Your task to perform on an android device: delete browsing data in the chrome app Image 0: 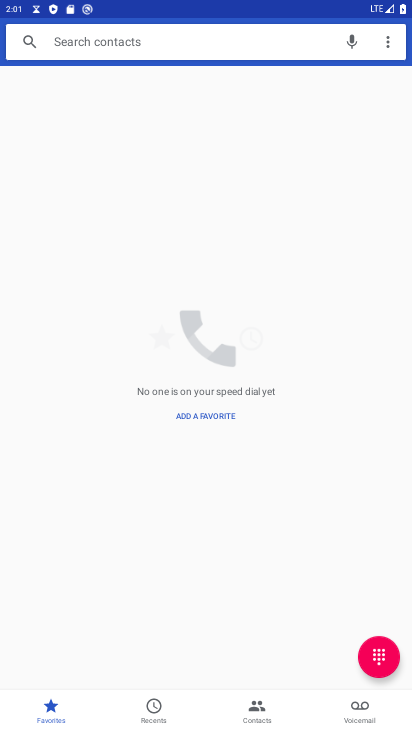
Step 0: press home button
Your task to perform on an android device: delete browsing data in the chrome app Image 1: 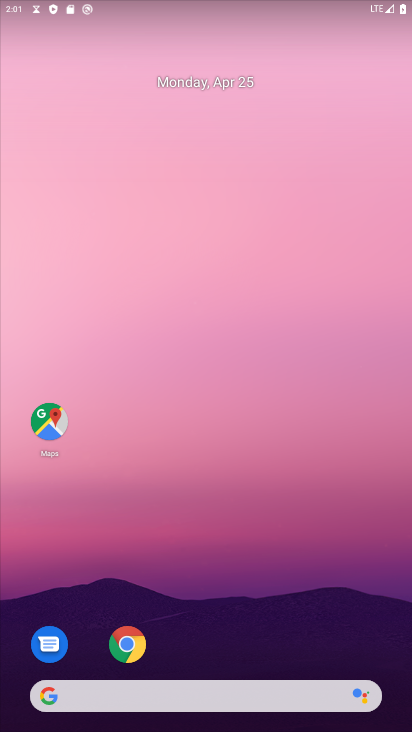
Step 1: click (132, 648)
Your task to perform on an android device: delete browsing data in the chrome app Image 2: 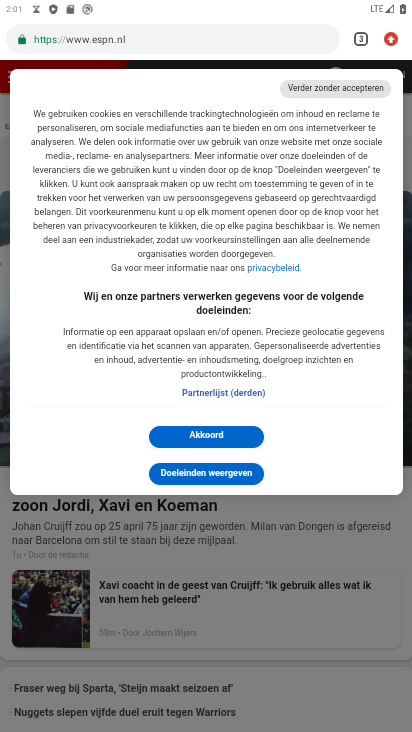
Step 2: drag from (393, 39) to (250, 515)
Your task to perform on an android device: delete browsing data in the chrome app Image 3: 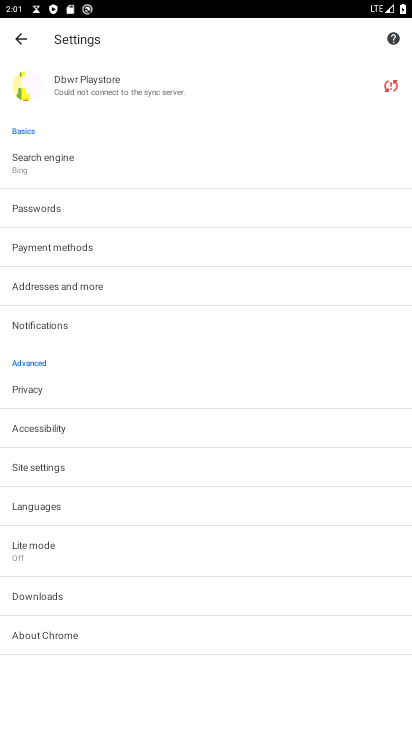
Step 3: click (37, 393)
Your task to perform on an android device: delete browsing data in the chrome app Image 4: 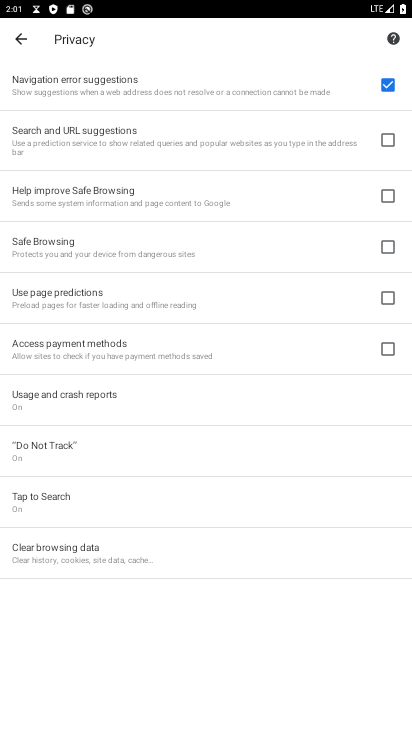
Step 4: click (39, 552)
Your task to perform on an android device: delete browsing data in the chrome app Image 5: 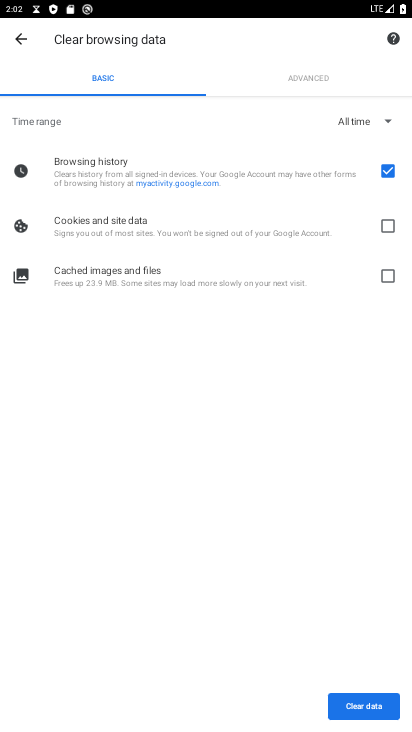
Step 5: click (371, 710)
Your task to perform on an android device: delete browsing data in the chrome app Image 6: 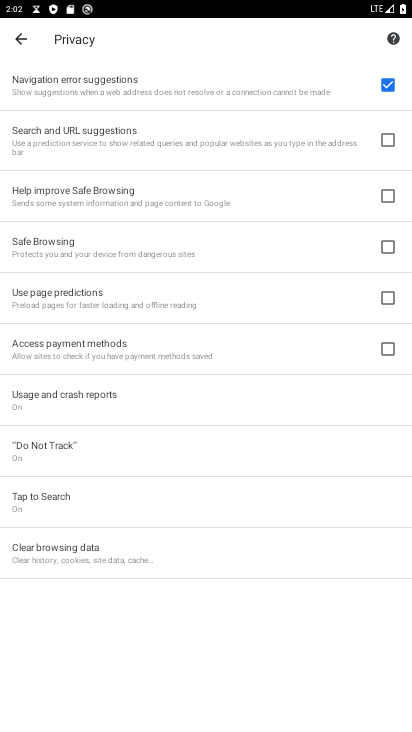
Step 6: task complete